Your task to perform on an android device: set the timer Image 0: 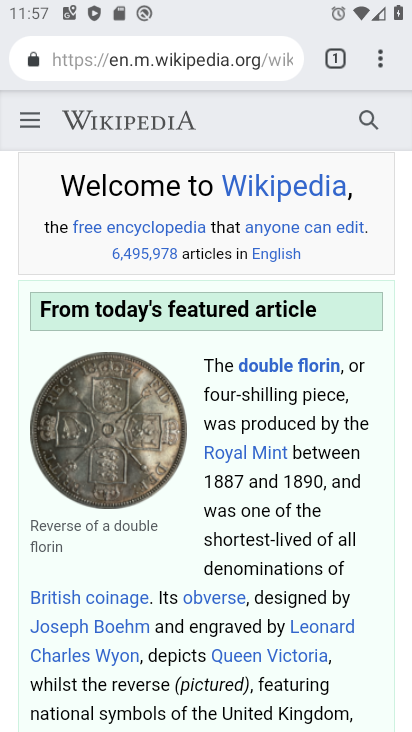
Step 0: task complete